Your task to perform on an android device: empty trash in google photos Image 0: 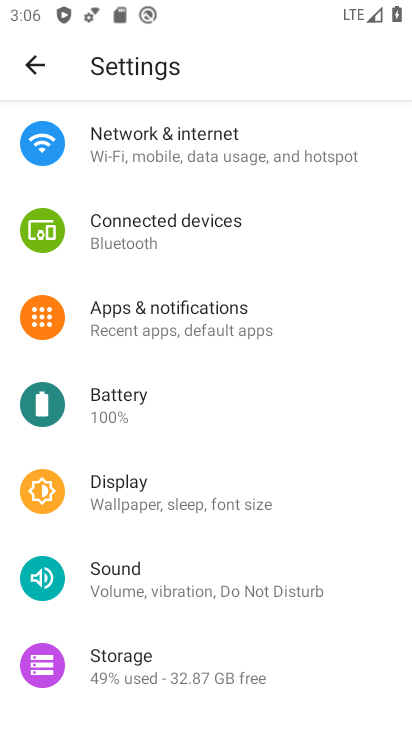
Step 0: press home button
Your task to perform on an android device: empty trash in google photos Image 1: 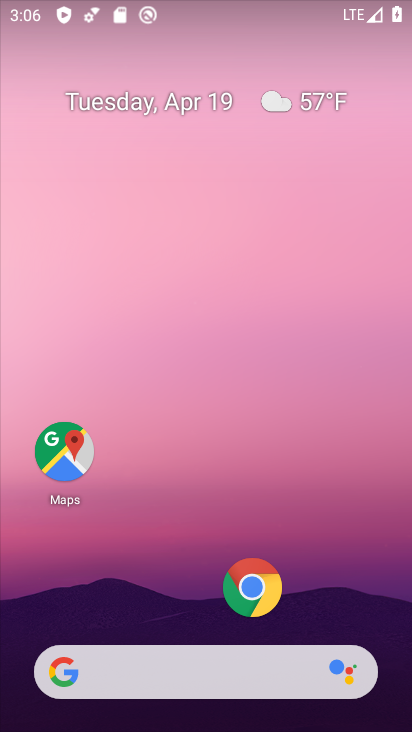
Step 1: drag from (175, 612) to (246, 195)
Your task to perform on an android device: empty trash in google photos Image 2: 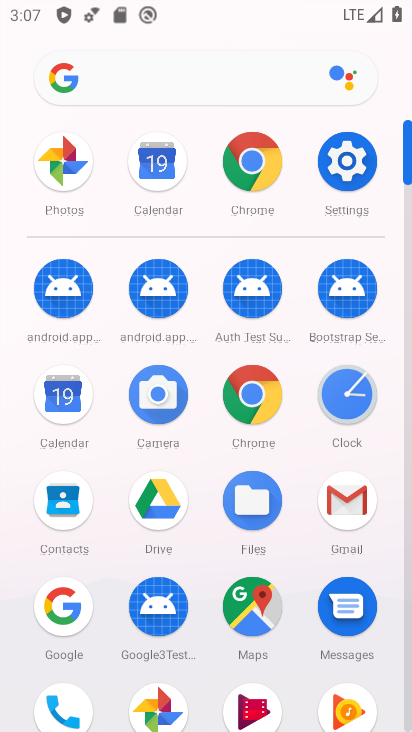
Step 2: click (149, 706)
Your task to perform on an android device: empty trash in google photos Image 3: 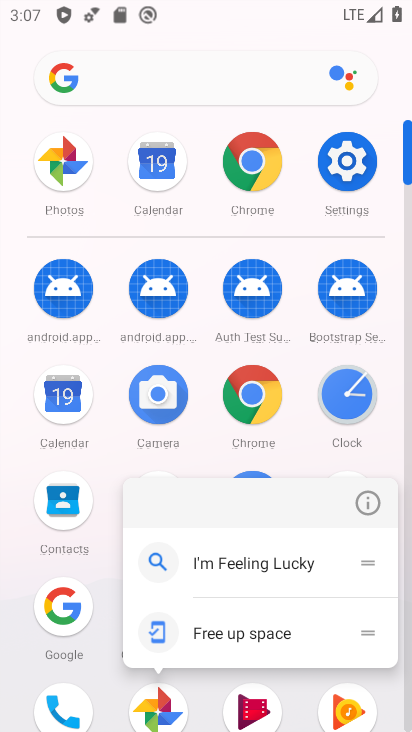
Step 3: click (144, 707)
Your task to perform on an android device: empty trash in google photos Image 4: 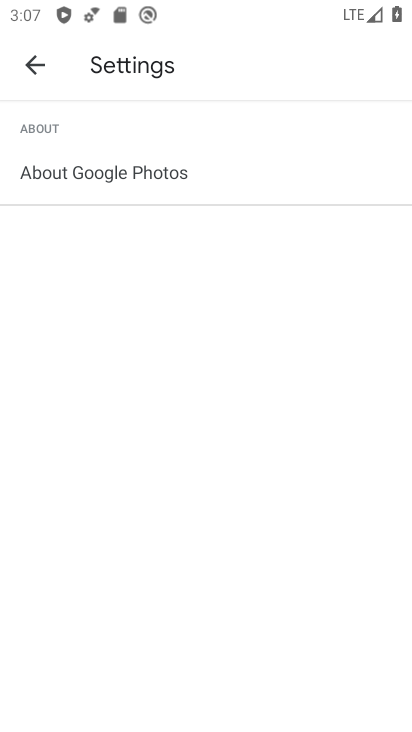
Step 4: click (23, 63)
Your task to perform on an android device: empty trash in google photos Image 5: 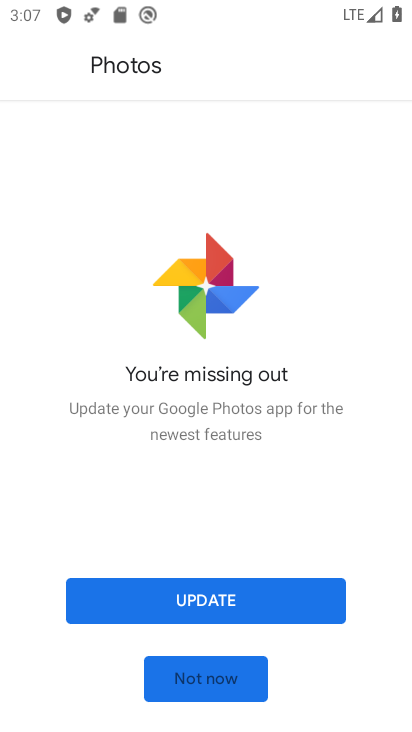
Step 5: click (214, 684)
Your task to perform on an android device: empty trash in google photos Image 6: 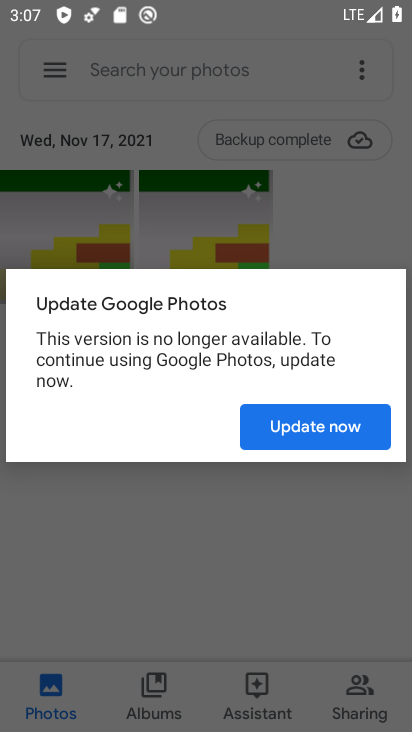
Step 6: click (354, 420)
Your task to perform on an android device: empty trash in google photos Image 7: 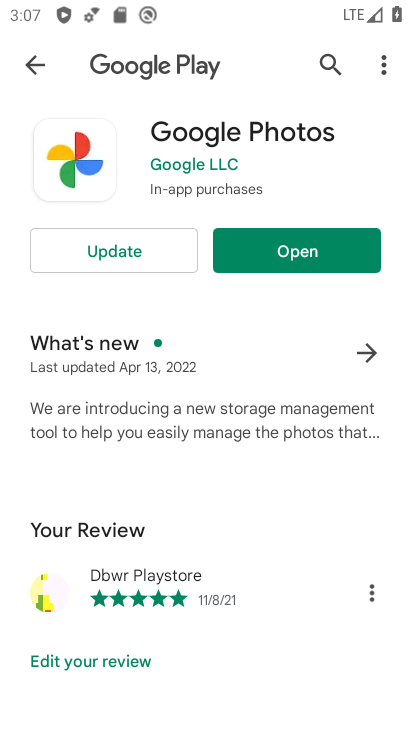
Step 7: click (282, 256)
Your task to perform on an android device: empty trash in google photos Image 8: 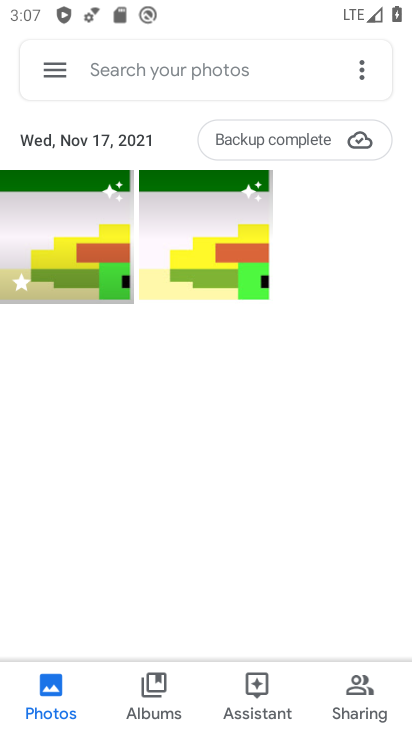
Step 8: click (57, 68)
Your task to perform on an android device: empty trash in google photos Image 9: 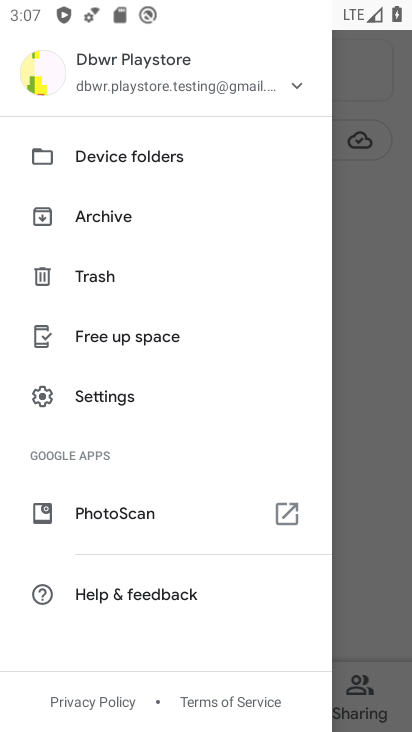
Step 9: click (87, 280)
Your task to perform on an android device: empty trash in google photos Image 10: 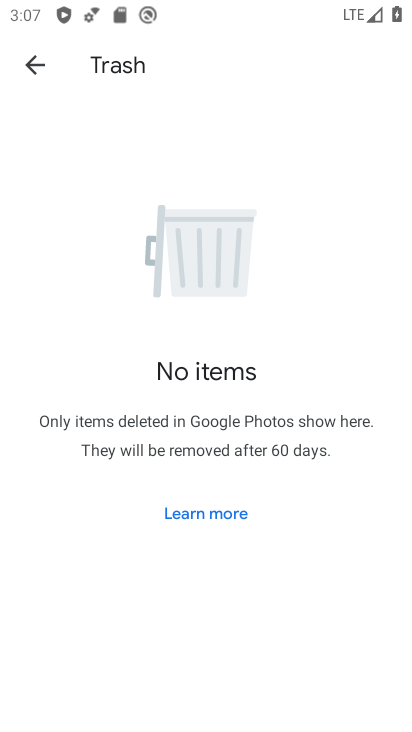
Step 10: task complete